Your task to perform on an android device: Open ESPN.com Image 0: 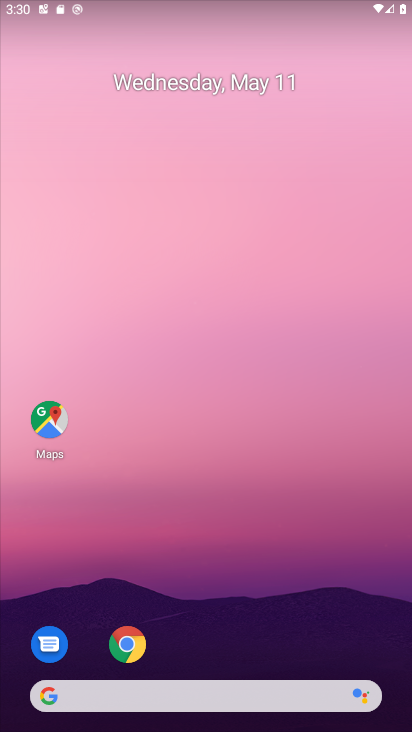
Step 0: drag from (207, 675) to (124, 58)
Your task to perform on an android device: Open ESPN.com Image 1: 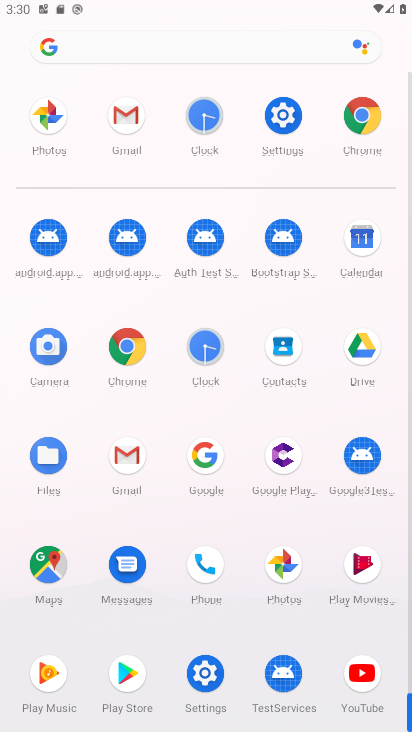
Step 1: click (135, 350)
Your task to perform on an android device: Open ESPN.com Image 2: 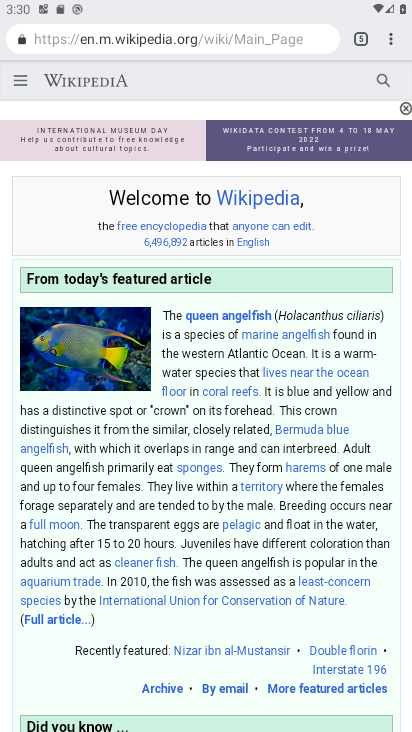
Step 2: click (357, 42)
Your task to perform on an android device: Open ESPN.com Image 3: 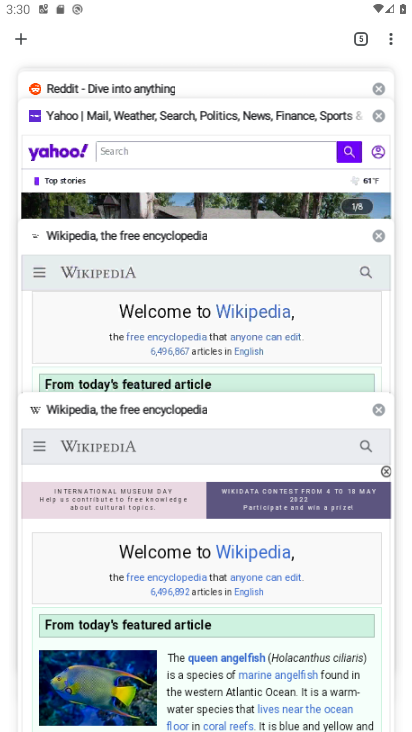
Step 3: drag from (150, 192) to (173, 594)
Your task to perform on an android device: Open ESPN.com Image 4: 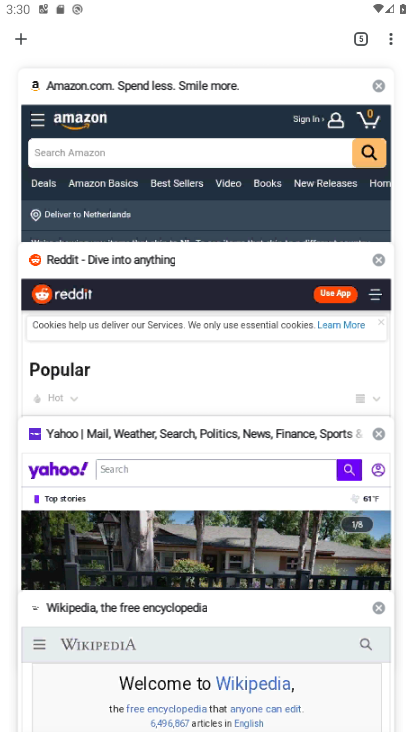
Step 4: click (22, 35)
Your task to perform on an android device: Open ESPN.com Image 5: 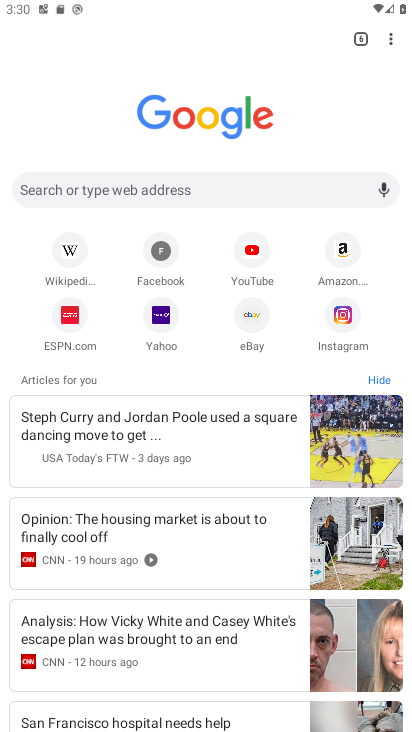
Step 5: click (48, 317)
Your task to perform on an android device: Open ESPN.com Image 6: 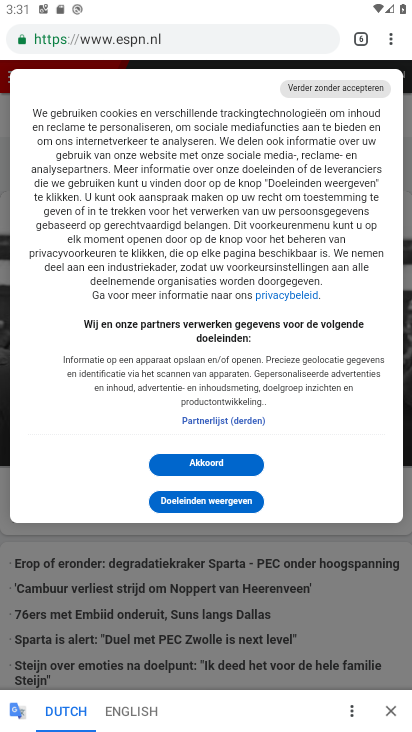
Step 6: task complete